Your task to perform on an android device: turn on airplane mode Image 0: 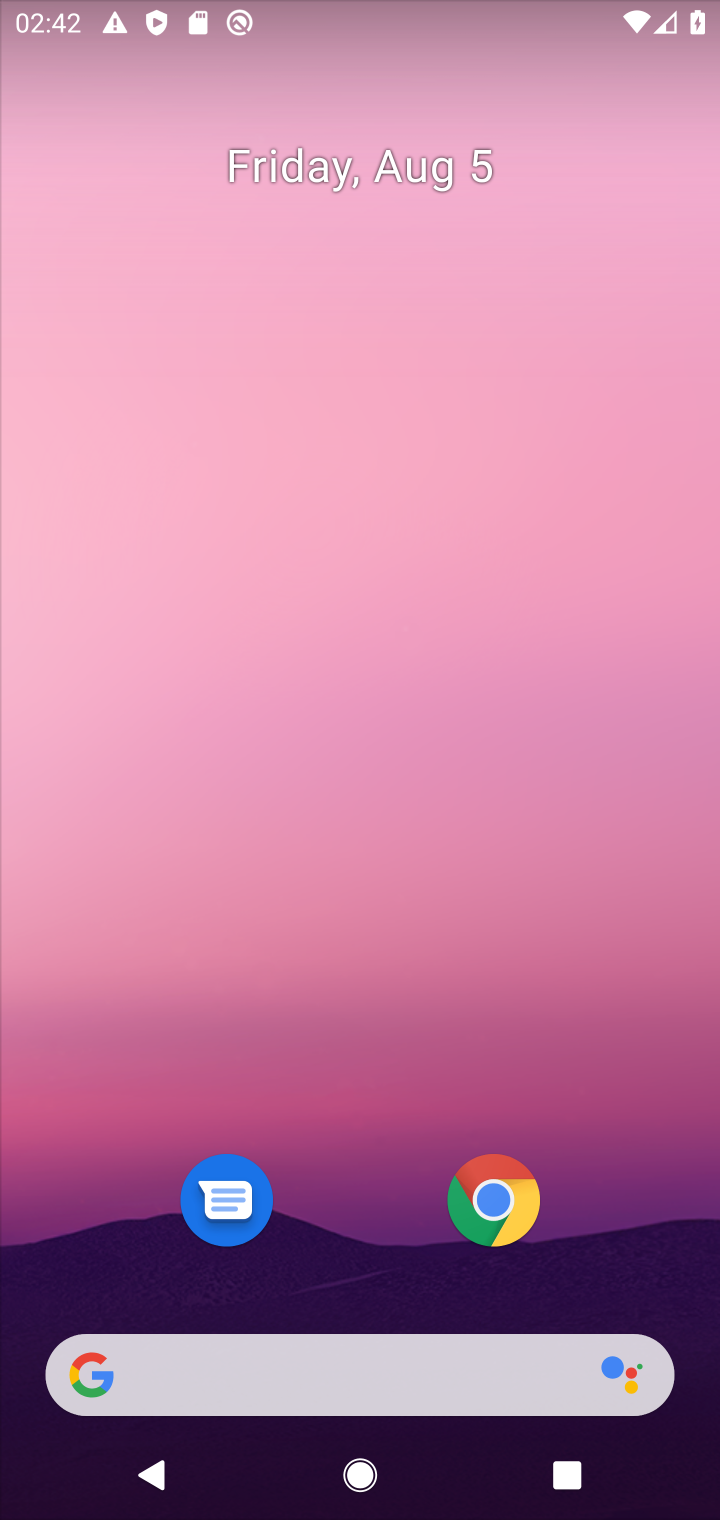
Step 0: drag from (377, 874) to (377, 406)
Your task to perform on an android device: turn on airplane mode Image 1: 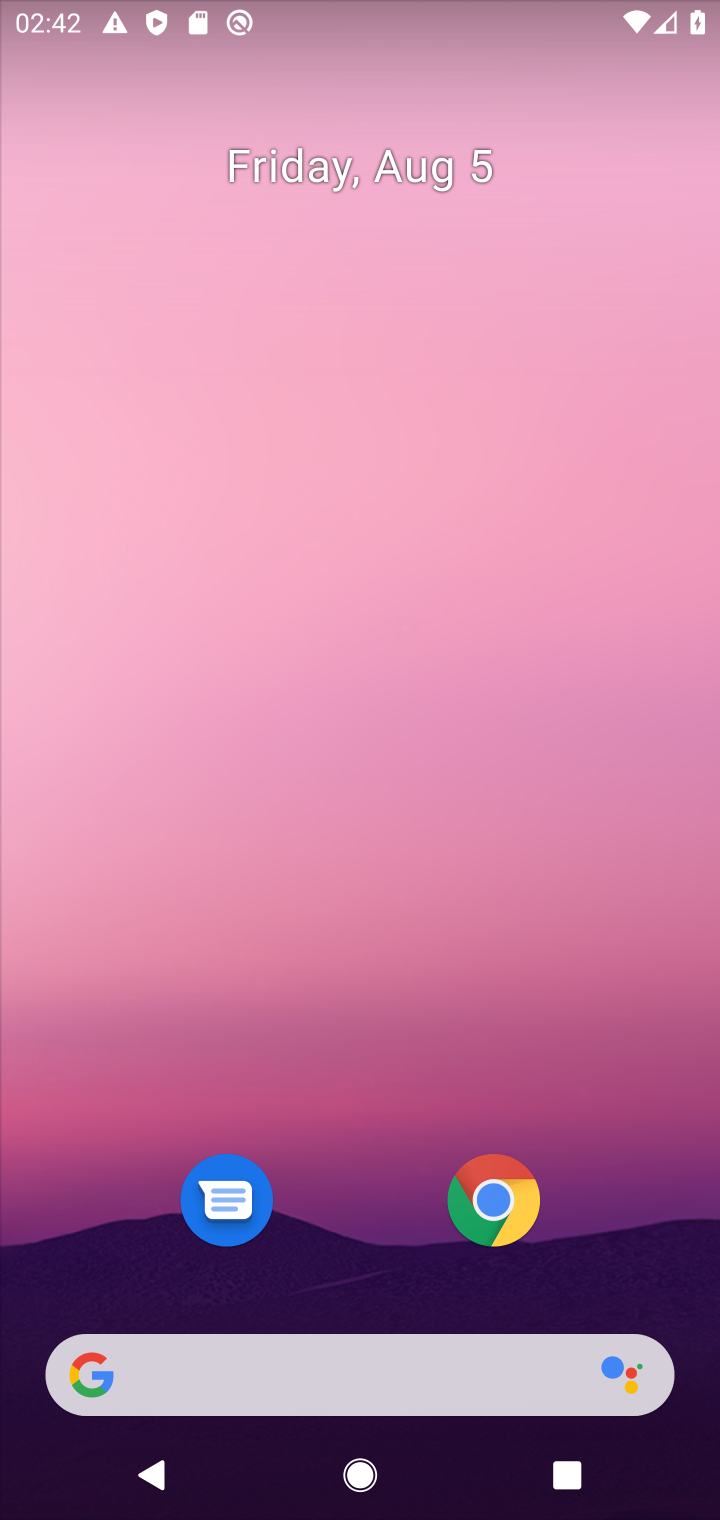
Step 1: drag from (380, 566) to (383, 282)
Your task to perform on an android device: turn on airplane mode Image 2: 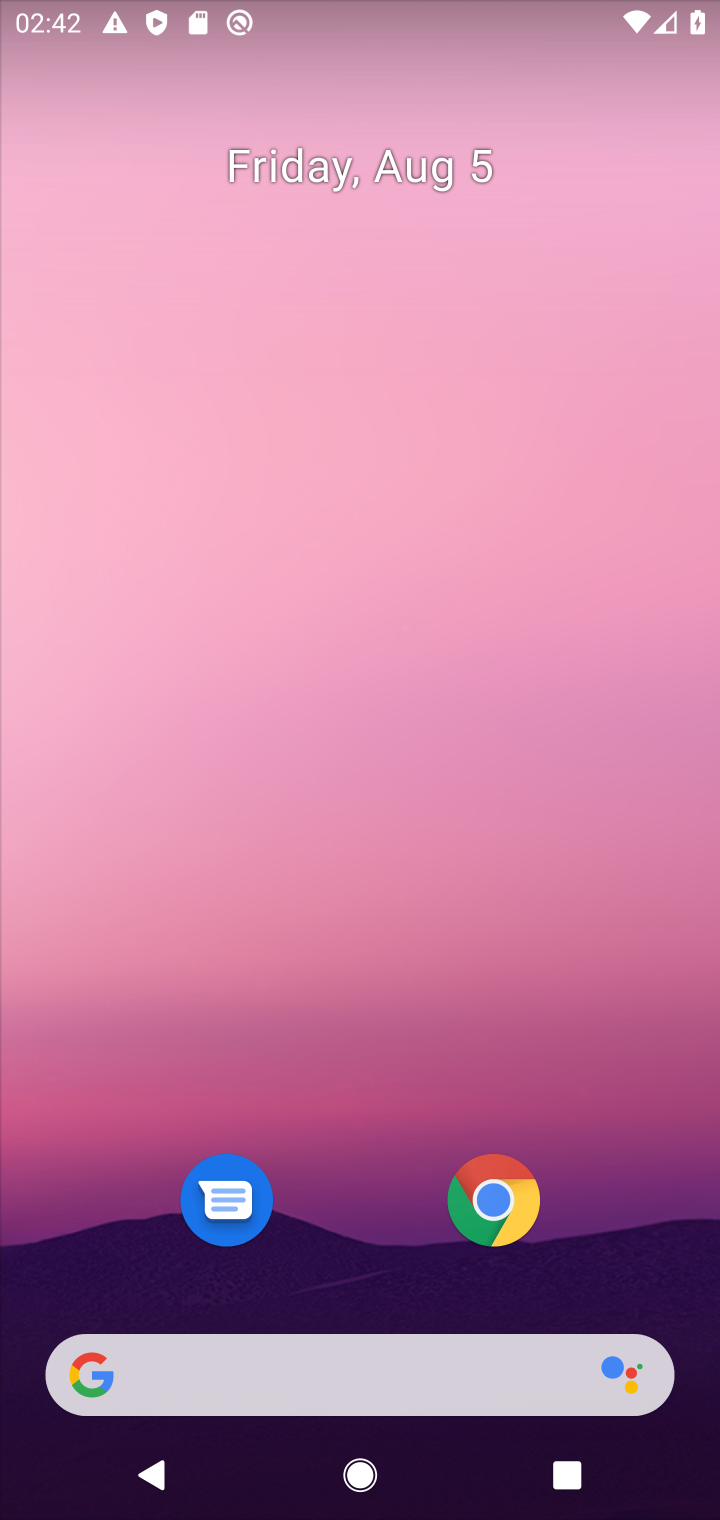
Step 2: drag from (336, 1244) to (357, 278)
Your task to perform on an android device: turn on airplane mode Image 3: 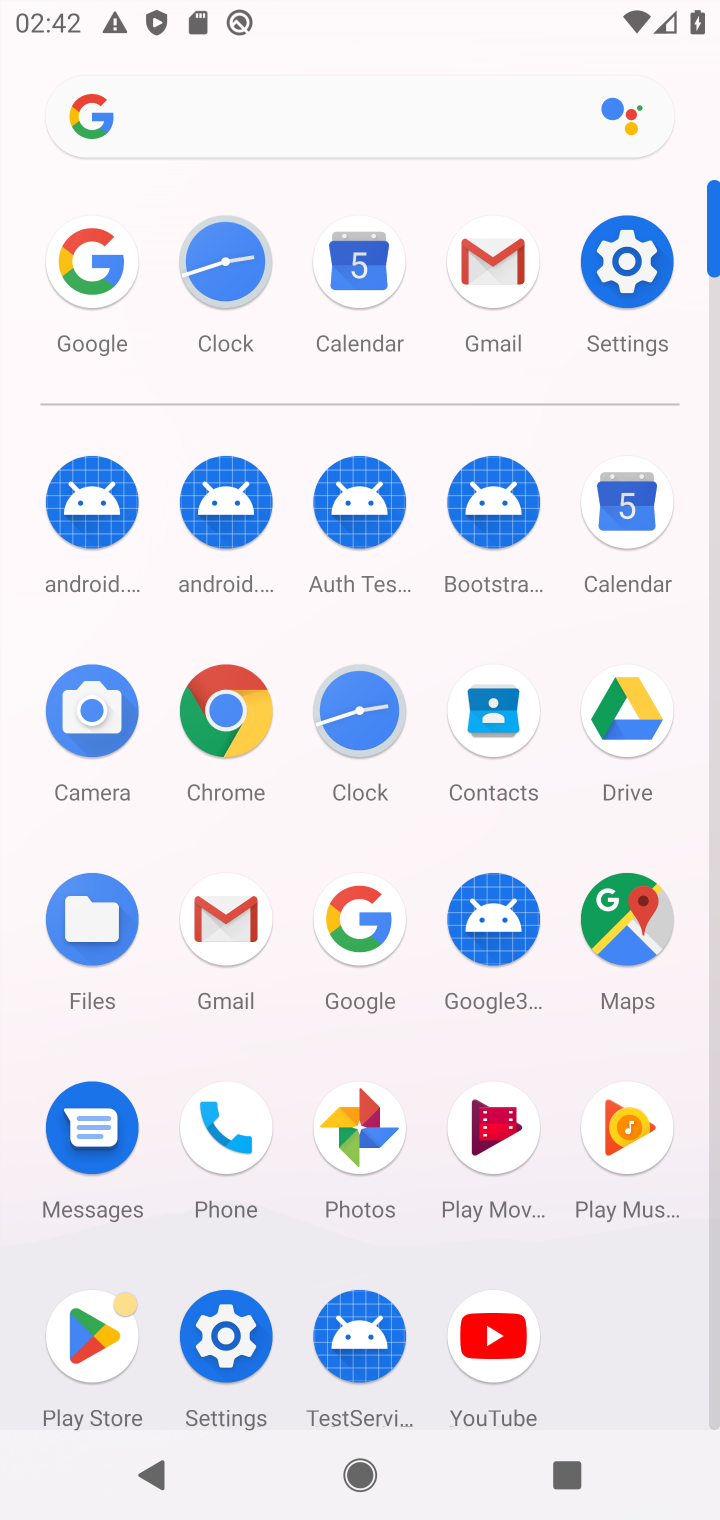
Step 3: click (601, 302)
Your task to perform on an android device: turn on airplane mode Image 4: 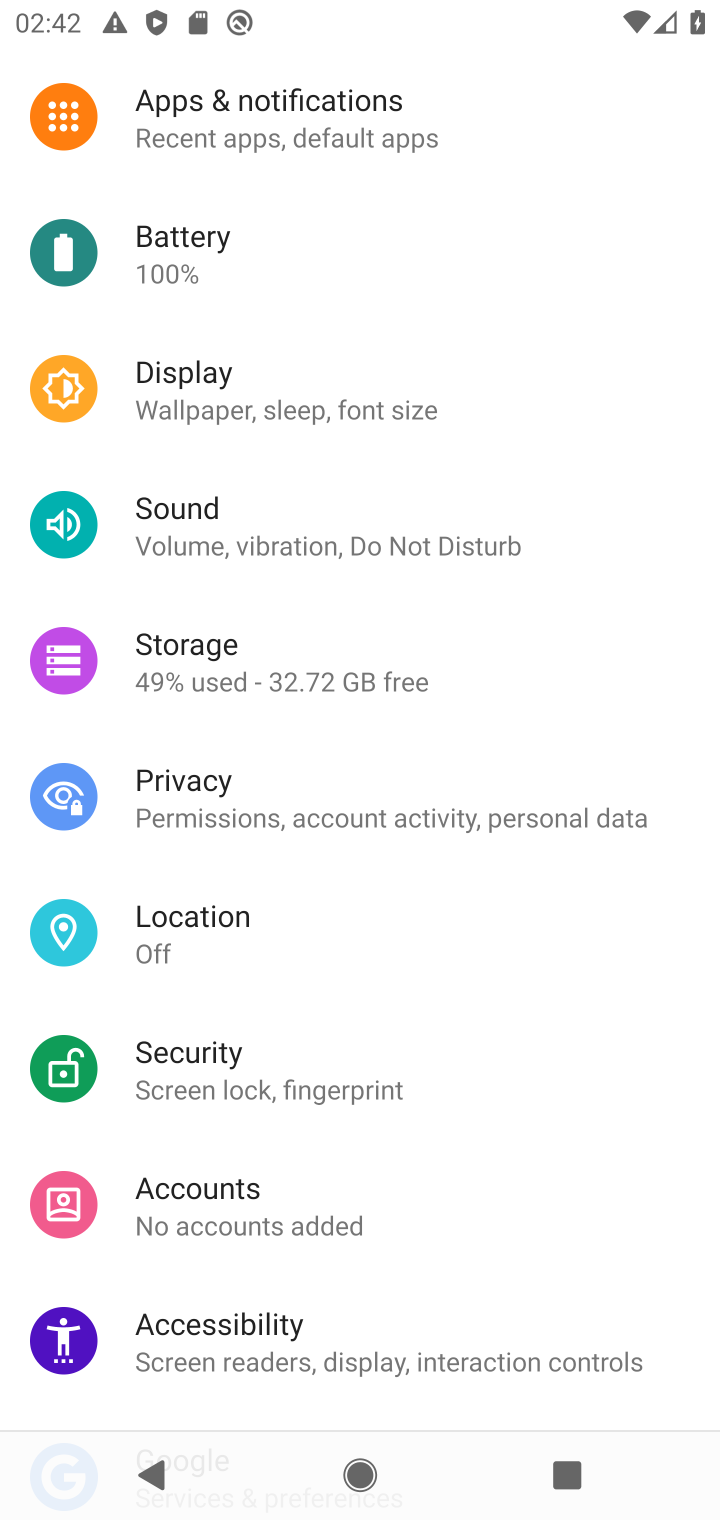
Step 4: drag from (298, 401) to (332, 1091)
Your task to perform on an android device: turn on airplane mode Image 5: 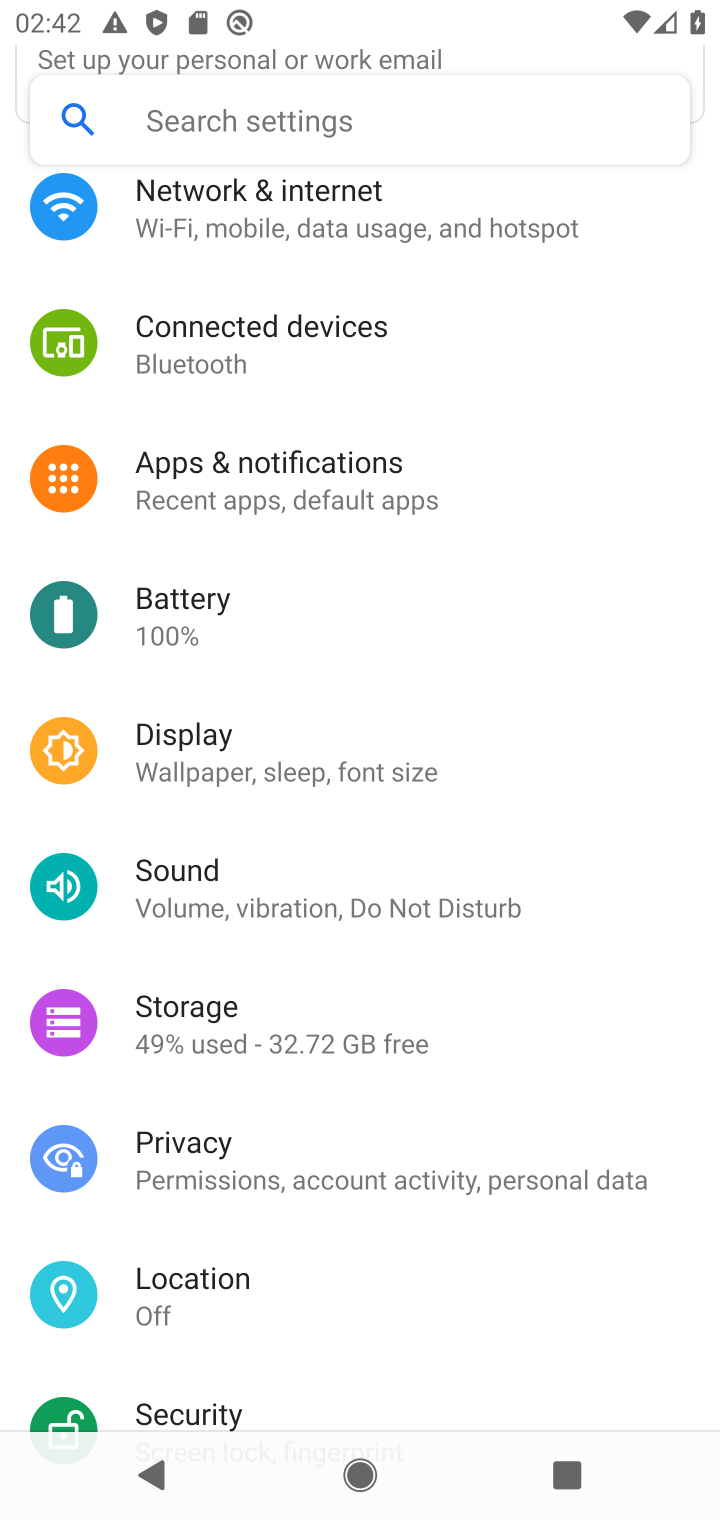
Step 5: drag from (346, 414) to (422, 1084)
Your task to perform on an android device: turn on airplane mode Image 6: 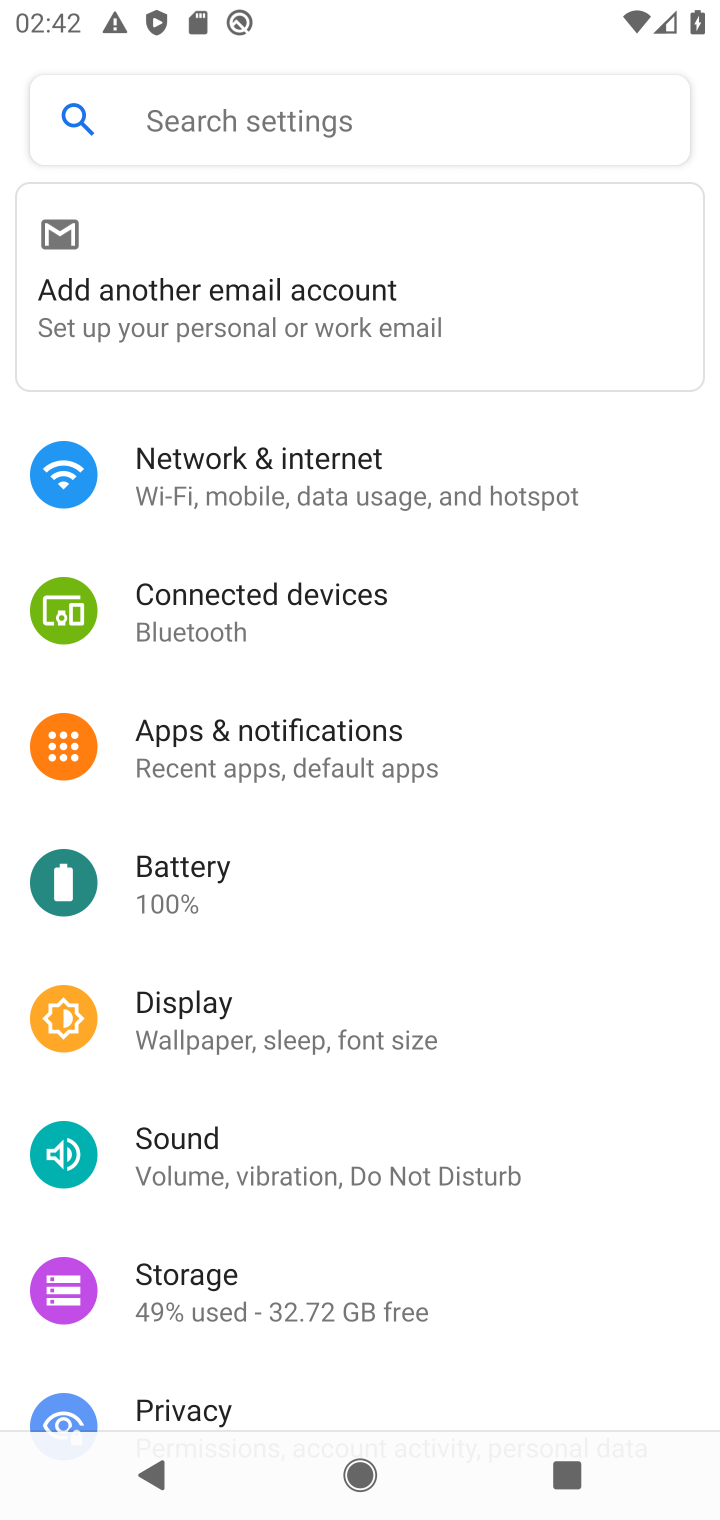
Step 6: click (273, 448)
Your task to perform on an android device: turn on airplane mode Image 7: 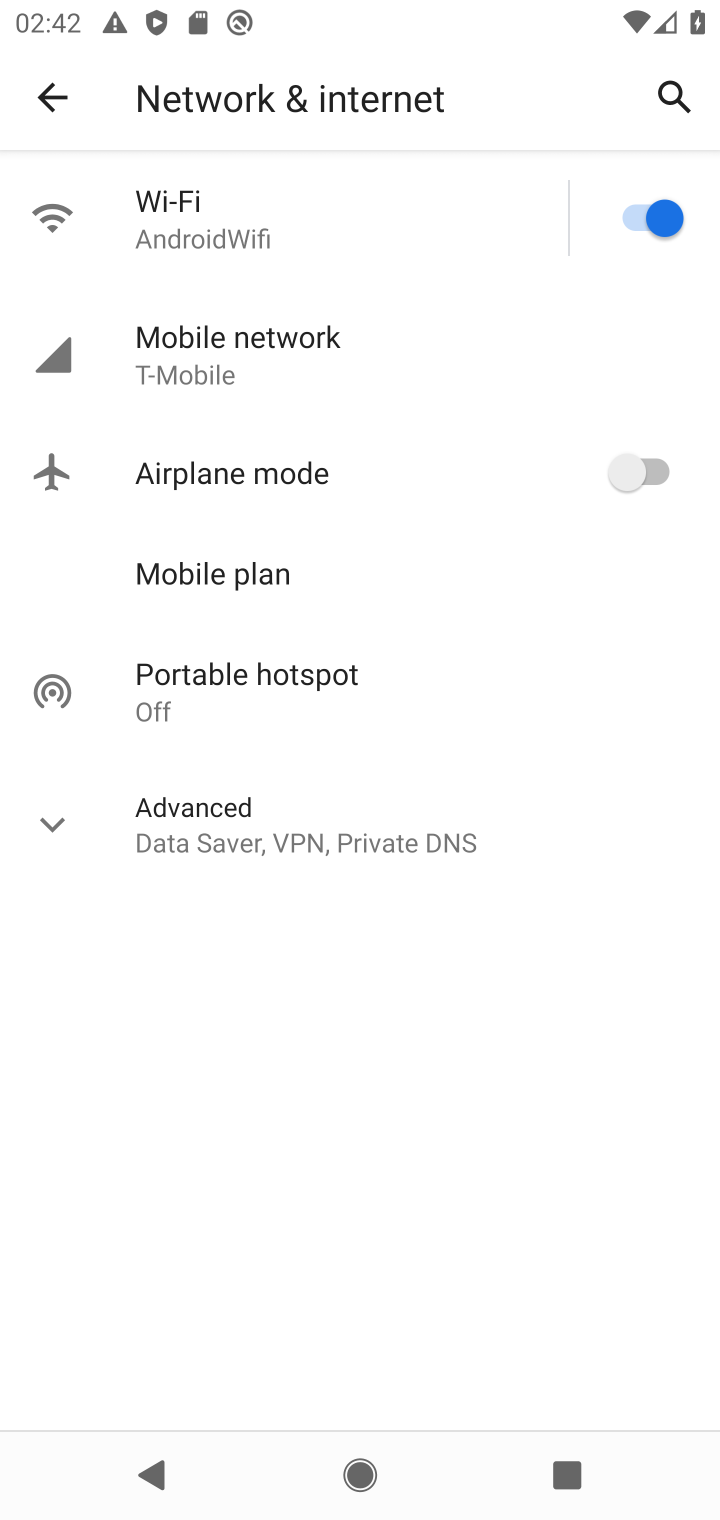
Step 7: click (653, 466)
Your task to perform on an android device: turn on airplane mode Image 8: 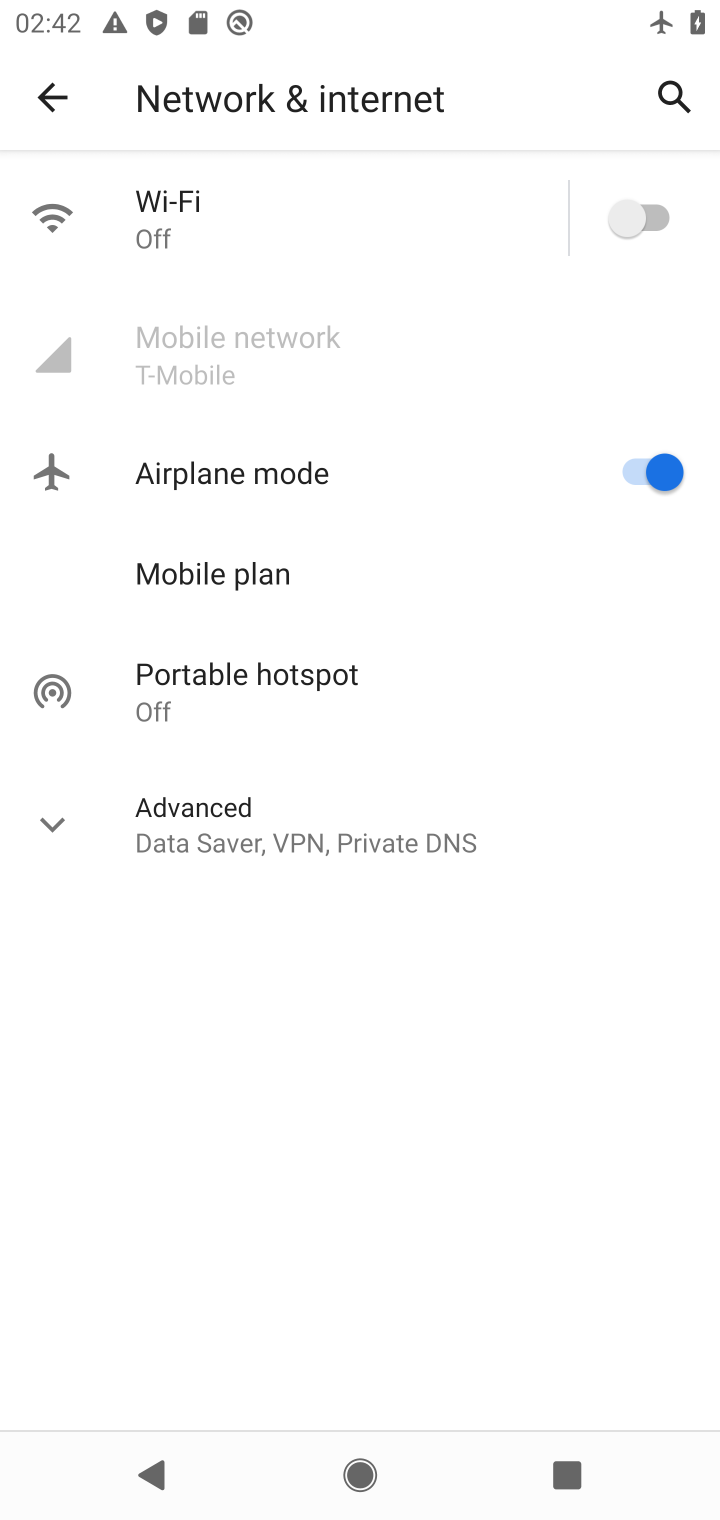
Step 8: task complete